Your task to perform on an android device: Search for flights from Mexico city to Sydney Image 0: 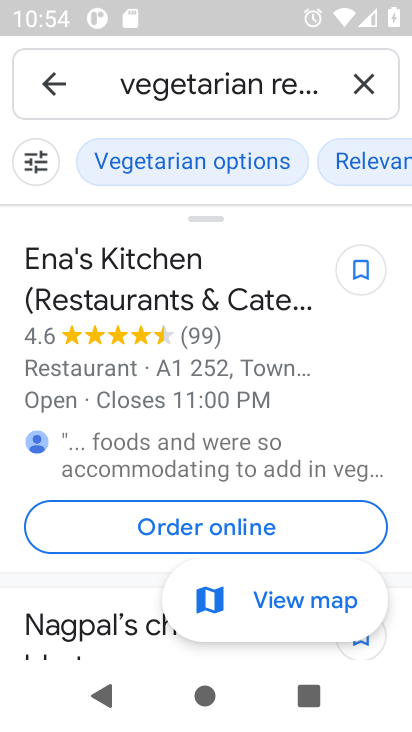
Step 0: press home button
Your task to perform on an android device: Search for flights from Mexico city to Sydney Image 1: 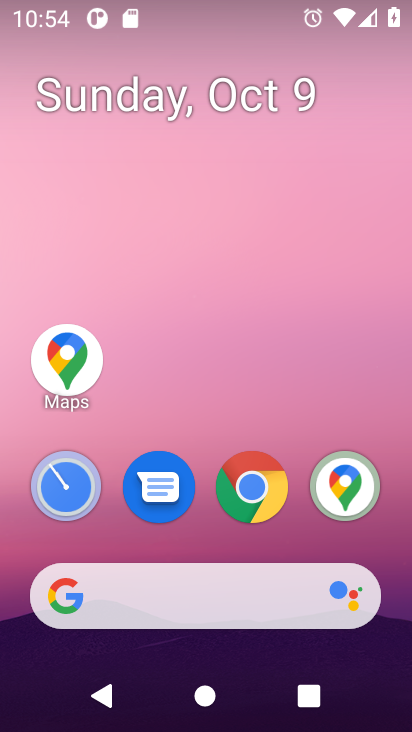
Step 1: click (251, 492)
Your task to perform on an android device: Search for flights from Mexico city to Sydney Image 2: 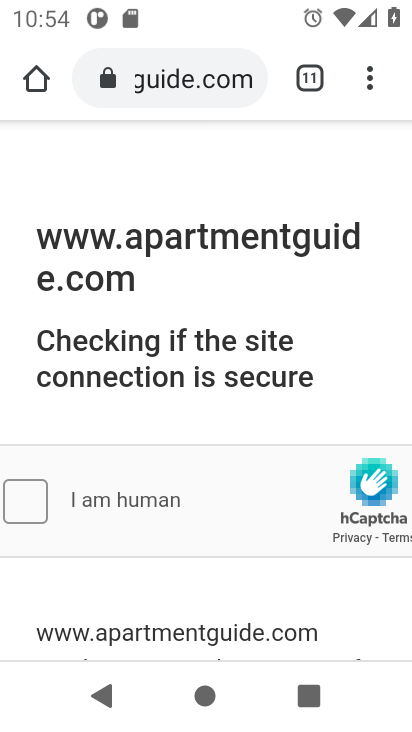
Step 2: drag from (370, 87) to (77, 159)
Your task to perform on an android device: Search for flights from Mexico city to Sydney Image 3: 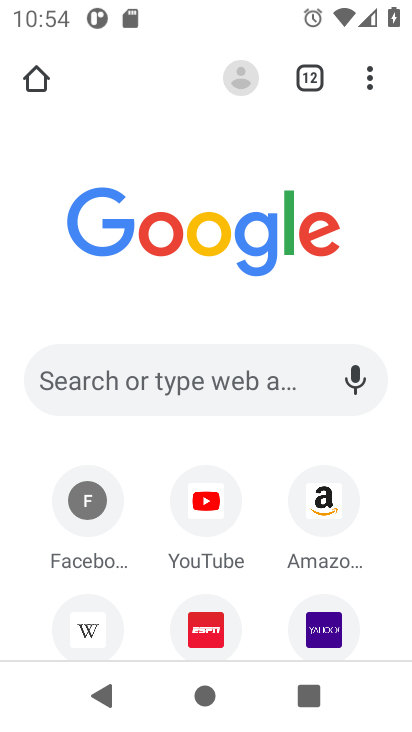
Step 3: click (184, 378)
Your task to perform on an android device: Search for flights from Mexico city to Sydney Image 4: 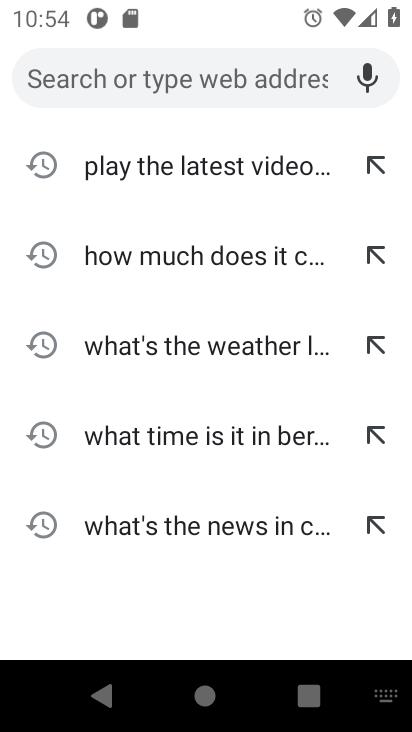
Step 4: type "flights from Mexico city to Sydney"
Your task to perform on an android device: Search for flights from Mexico city to Sydney Image 5: 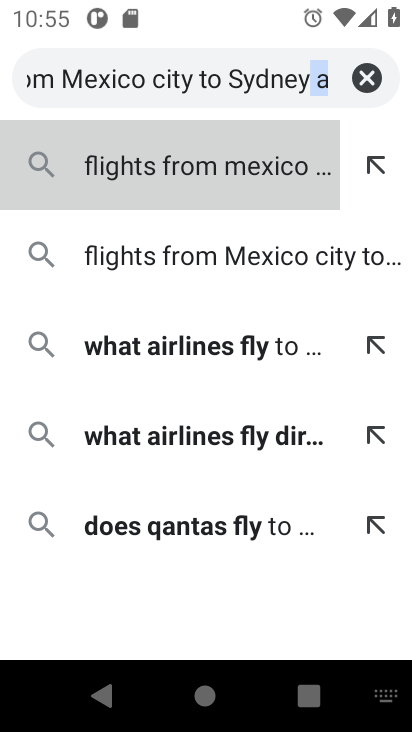
Step 5: click (242, 167)
Your task to perform on an android device: Search for flights from Mexico city to Sydney Image 6: 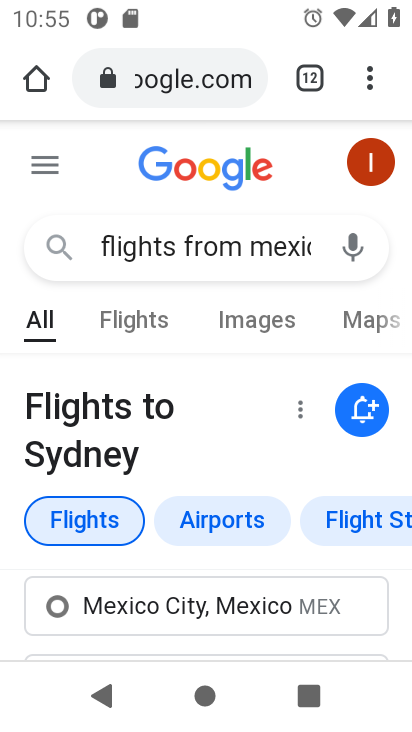
Step 6: task complete